Your task to perform on an android device: Turn off the flashlight Image 0: 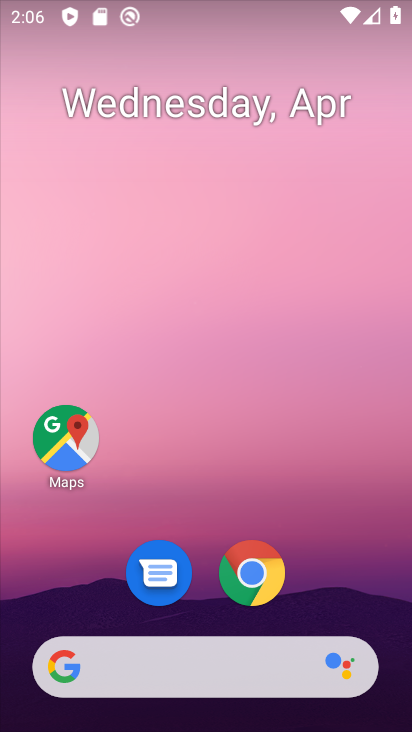
Step 0: drag from (222, 5) to (200, 438)
Your task to perform on an android device: Turn off the flashlight Image 1: 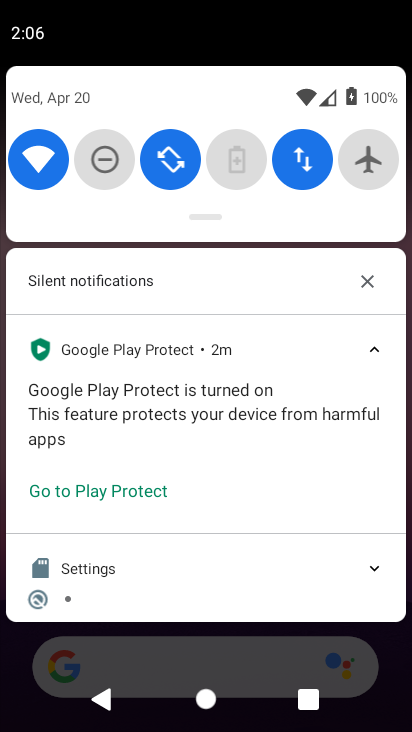
Step 1: drag from (199, 108) to (187, 434)
Your task to perform on an android device: Turn off the flashlight Image 2: 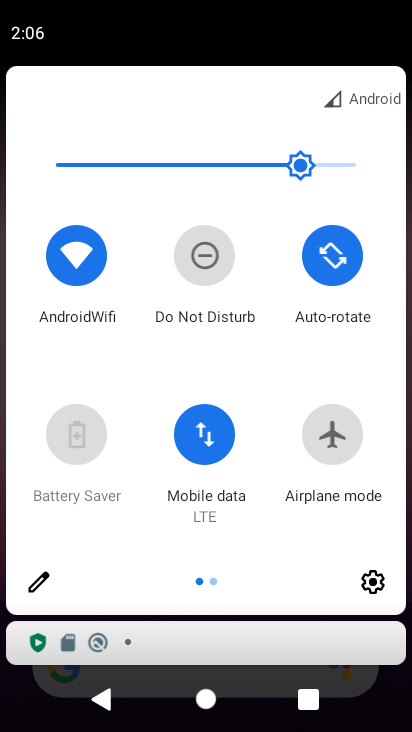
Step 2: click (39, 538)
Your task to perform on an android device: Turn off the flashlight Image 3: 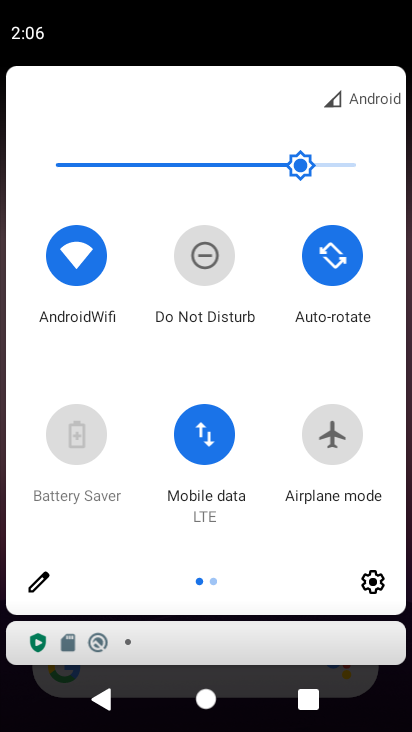
Step 3: click (38, 581)
Your task to perform on an android device: Turn off the flashlight Image 4: 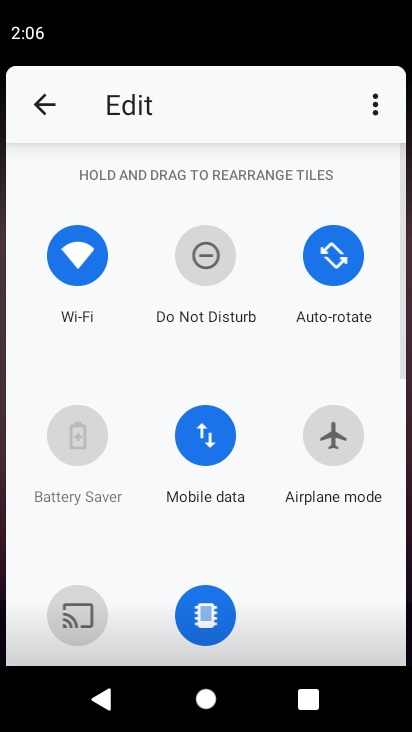
Step 4: task complete